Your task to perform on an android device: Open Yahoo.com Image 0: 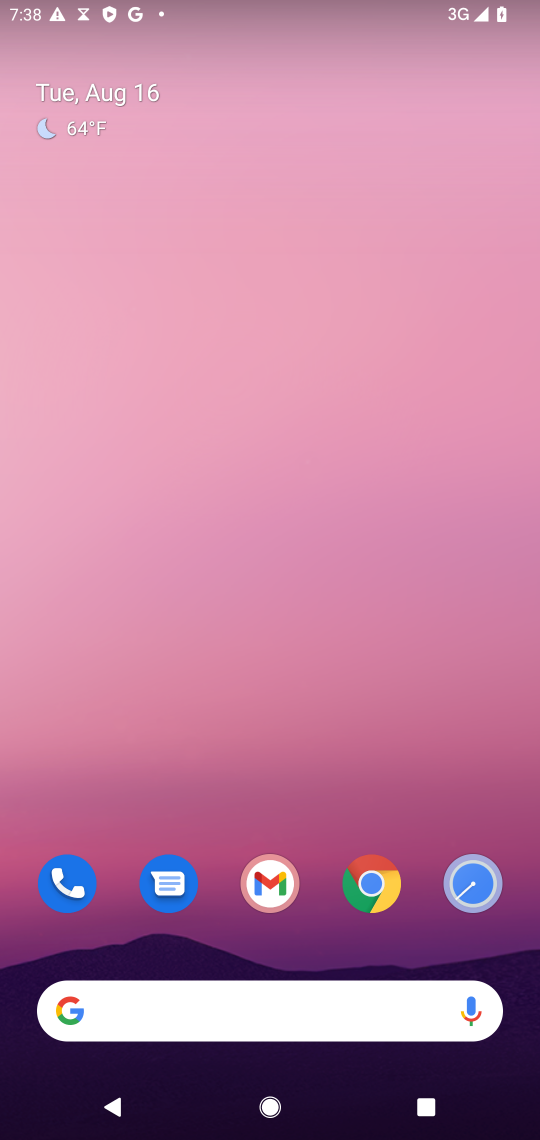
Step 0: click (371, 884)
Your task to perform on an android device: Open Yahoo.com Image 1: 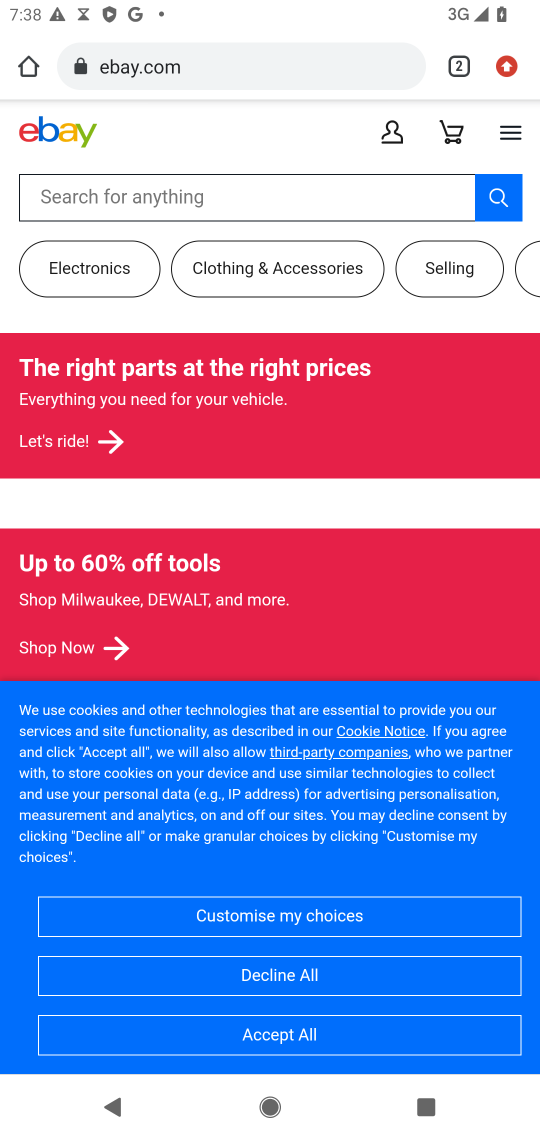
Step 1: click (323, 75)
Your task to perform on an android device: Open Yahoo.com Image 2: 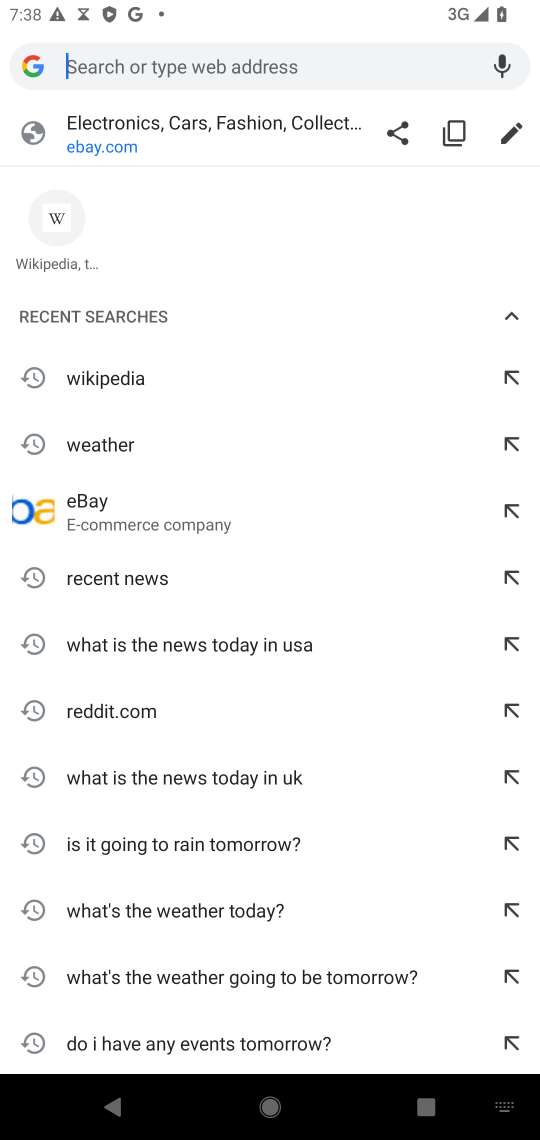
Step 2: type "Yahoo.com"
Your task to perform on an android device: Open Yahoo.com Image 3: 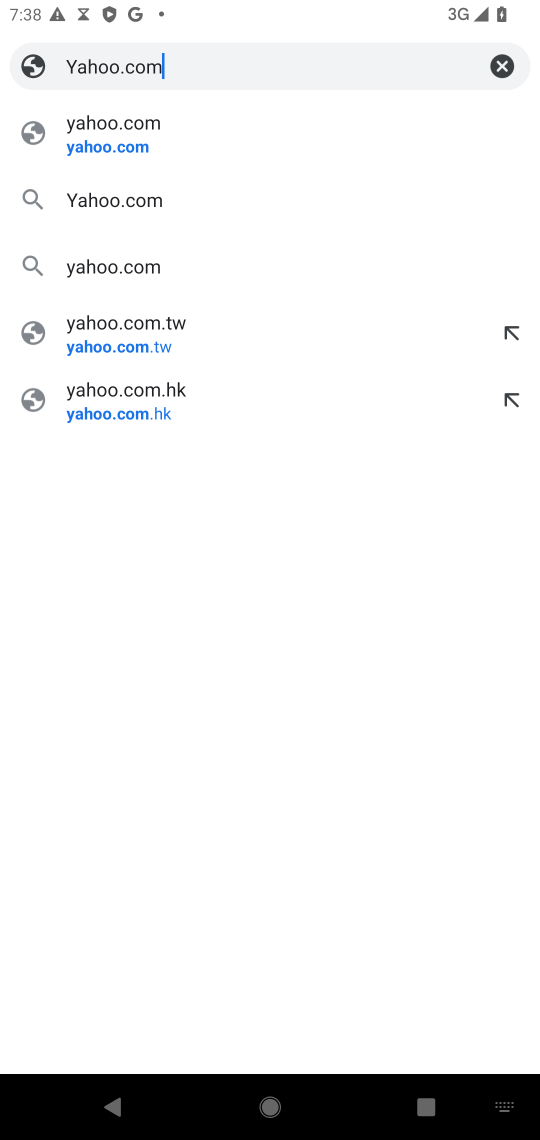
Step 3: click (86, 199)
Your task to perform on an android device: Open Yahoo.com Image 4: 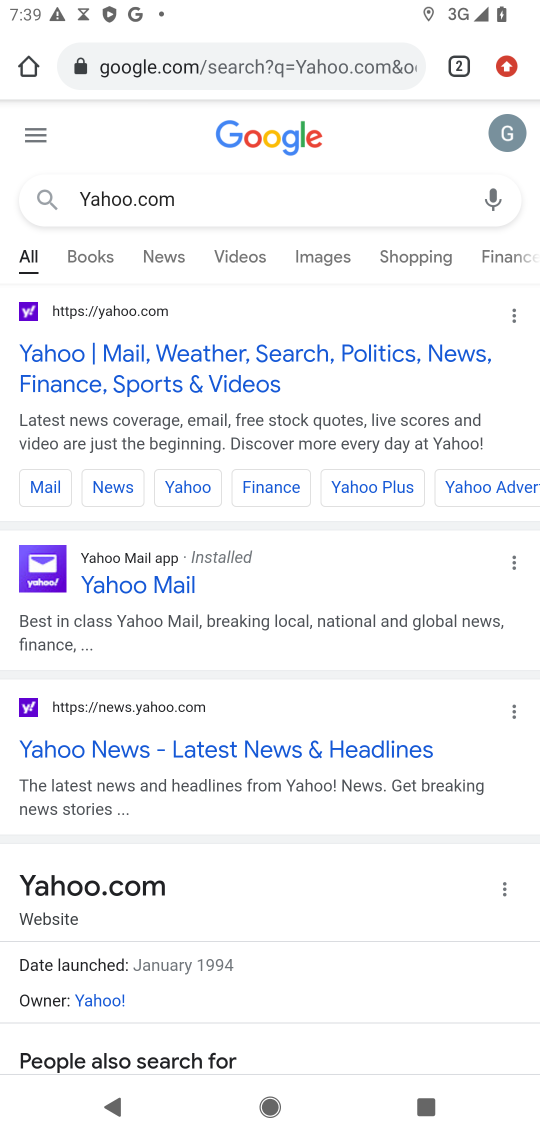
Step 4: click (127, 330)
Your task to perform on an android device: Open Yahoo.com Image 5: 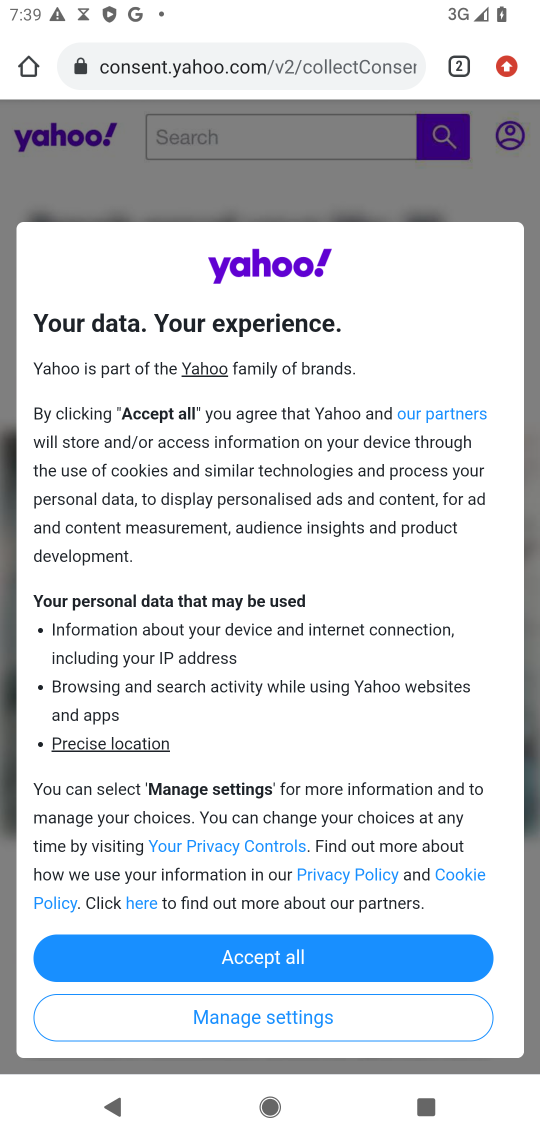
Step 5: click (251, 976)
Your task to perform on an android device: Open Yahoo.com Image 6: 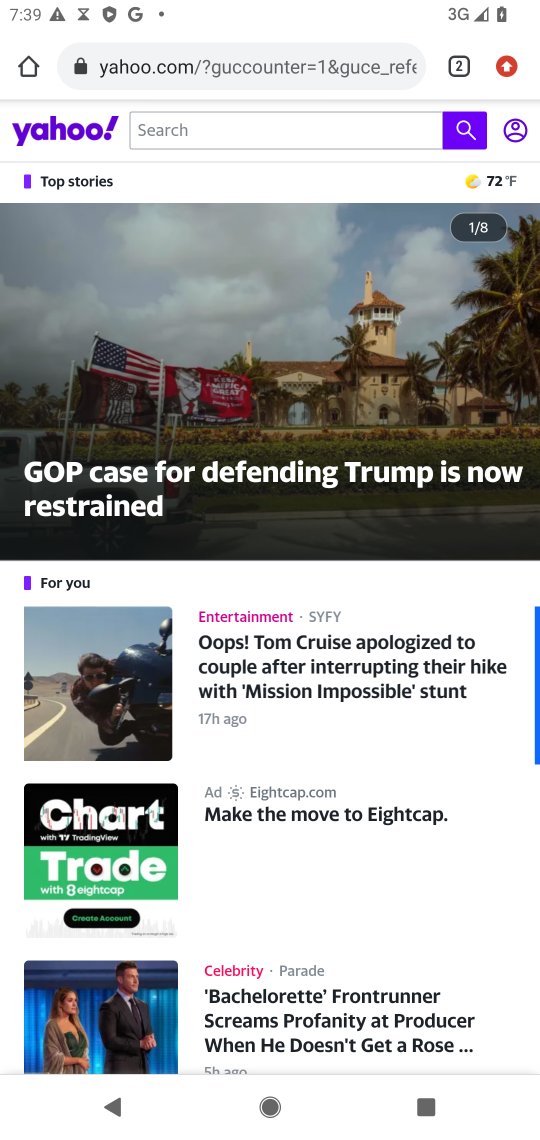
Step 6: task complete